Your task to perform on an android device: Show me the alarms in the clock app Image 0: 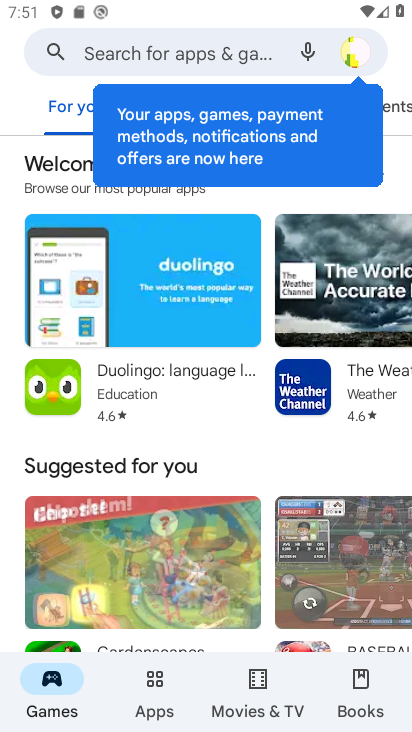
Step 0: press home button
Your task to perform on an android device: Show me the alarms in the clock app Image 1: 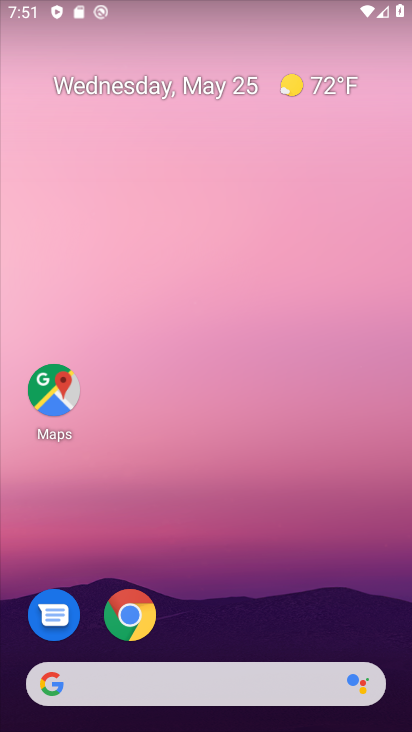
Step 1: drag from (265, 525) to (274, 48)
Your task to perform on an android device: Show me the alarms in the clock app Image 2: 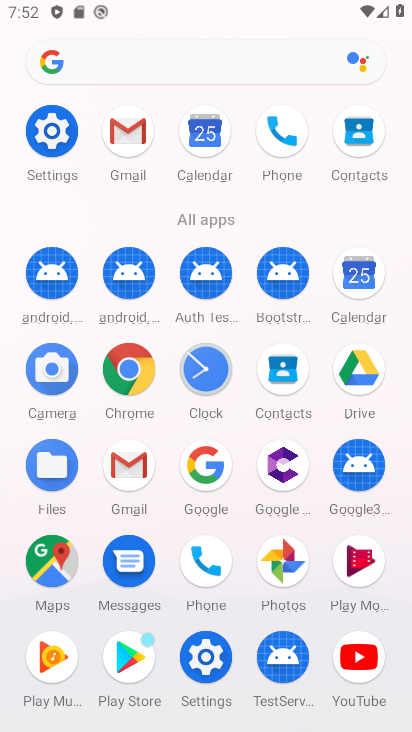
Step 2: click (196, 374)
Your task to perform on an android device: Show me the alarms in the clock app Image 3: 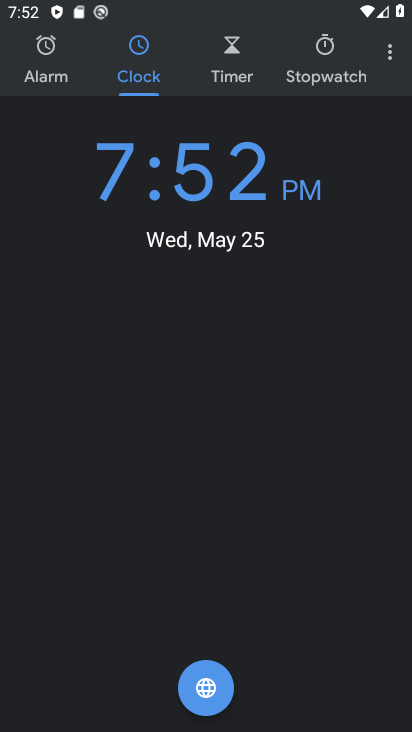
Step 3: click (50, 62)
Your task to perform on an android device: Show me the alarms in the clock app Image 4: 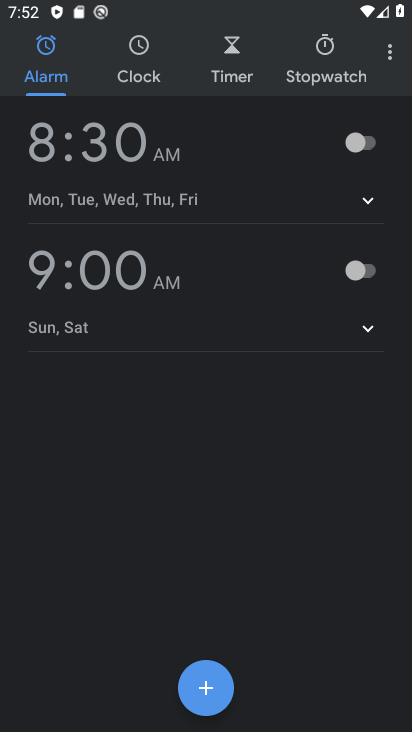
Step 4: task complete